Your task to perform on an android device: check android version Image 0: 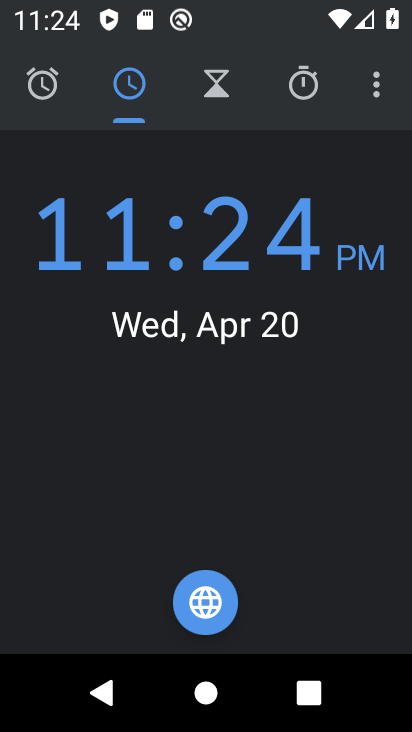
Step 0: press home button
Your task to perform on an android device: check android version Image 1: 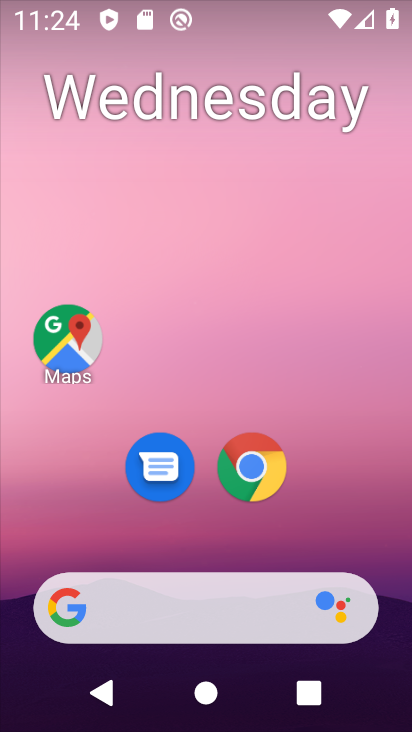
Step 1: drag from (362, 513) to (338, 70)
Your task to perform on an android device: check android version Image 2: 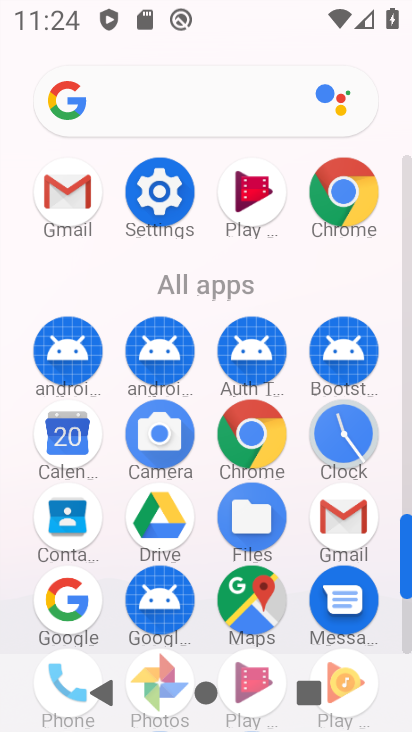
Step 2: drag from (282, 268) to (303, 61)
Your task to perform on an android device: check android version Image 3: 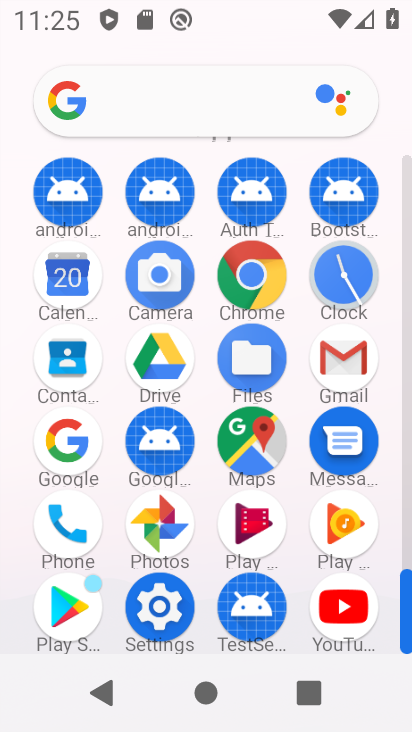
Step 3: click (173, 603)
Your task to perform on an android device: check android version Image 4: 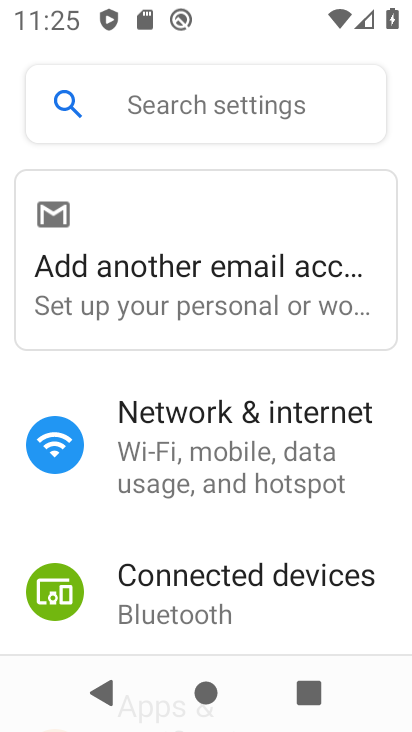
Step 4: drag from (297, 617) to (279, 149)
Your task to perform on an android device: check android version Image 5: 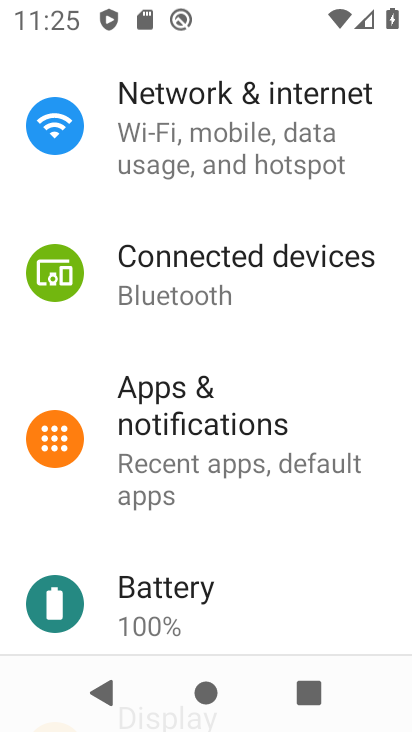
Step 5: drag from (257, 557) to (259, 160)
Your task to perform on an android device: check android version Image 6: 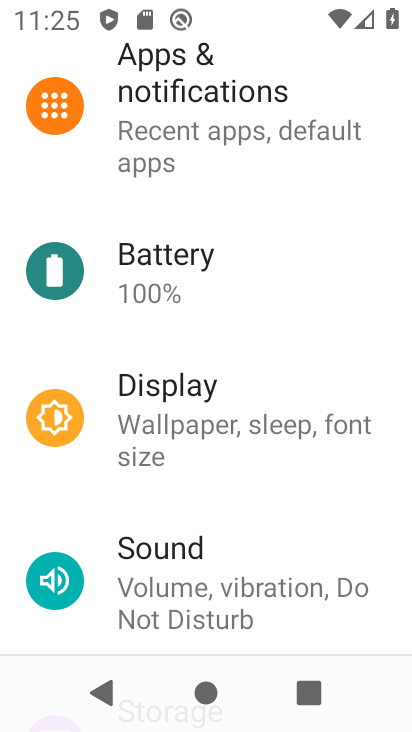
Step 6: drag from (242, 617) to (251, 145)
Your task to perform on an android device: check android version Image 7: 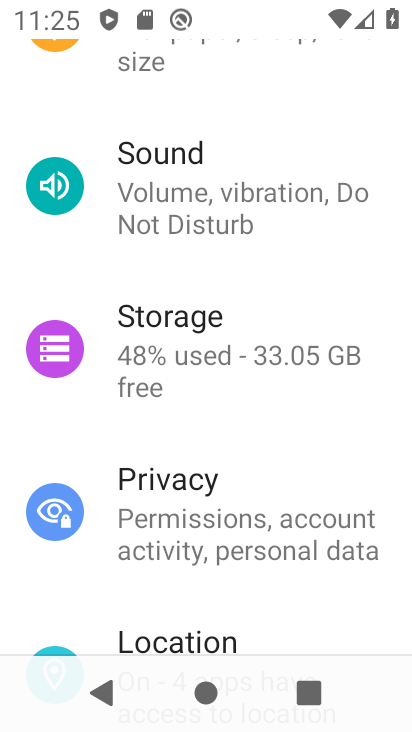
Step 7: drag from (248, 647) to (296, 12)
Your task to perform on an android device: check android version Image 8: 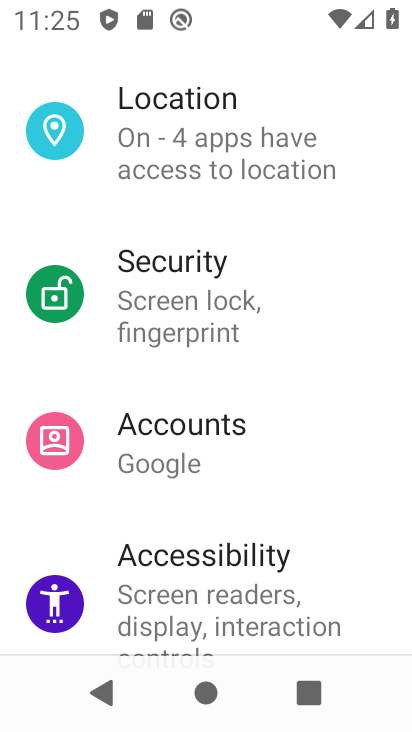
Step 8: drag from (206, 600) to (186, 130)
Your task to perform on an android device: check android version Image 9: 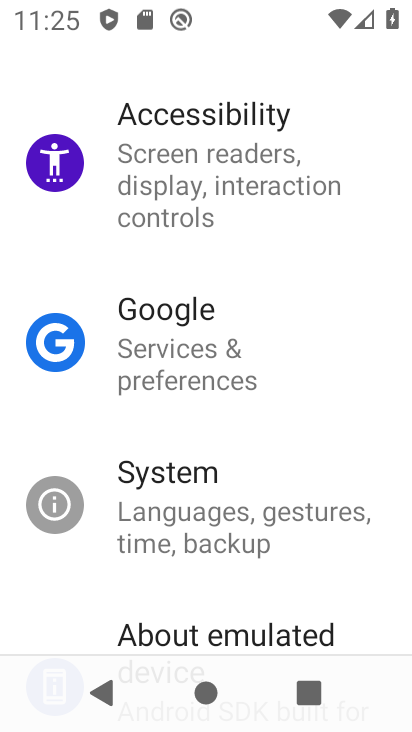
Step 9: drag from (216, 628) to (201, 261)
Your task to perform on an android device: check android version Image 10: 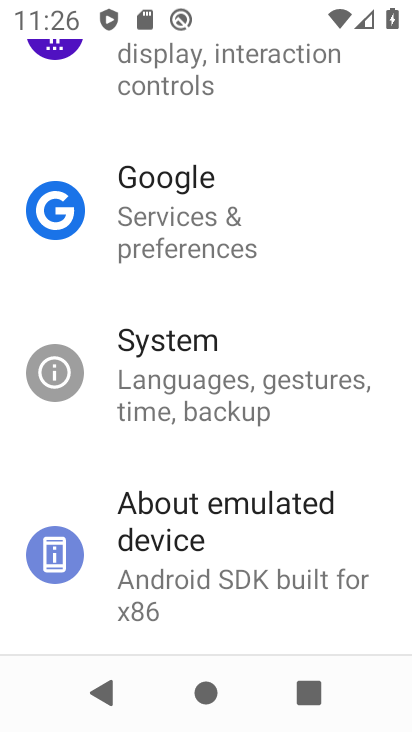
Step 10: drag from (244, 551) to (248, 441)
Your task to perform on an android device: check android version Image 11: 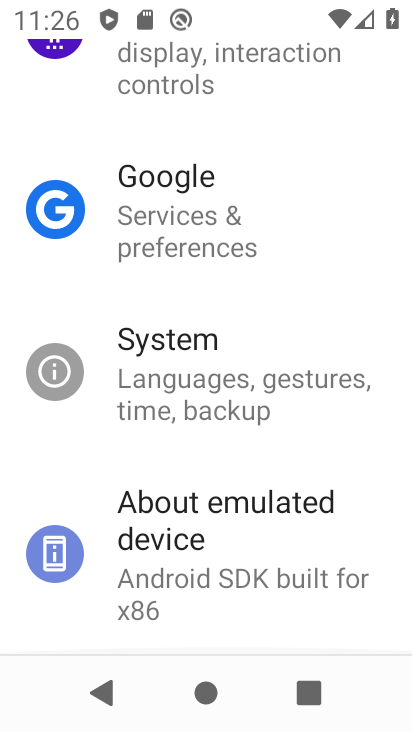
Step 11: click (249, 529)
Your task to perform on an android device: check android version Image 12: 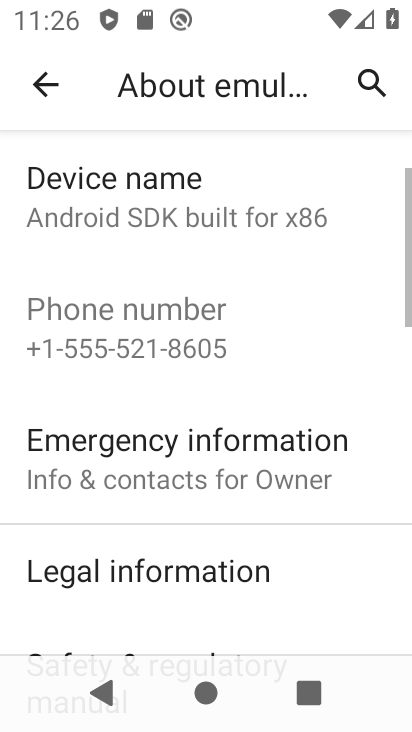
Step 12: drag from (220, 609) to (206, 353)
Your task to perform on an android device: check android version Image 13: 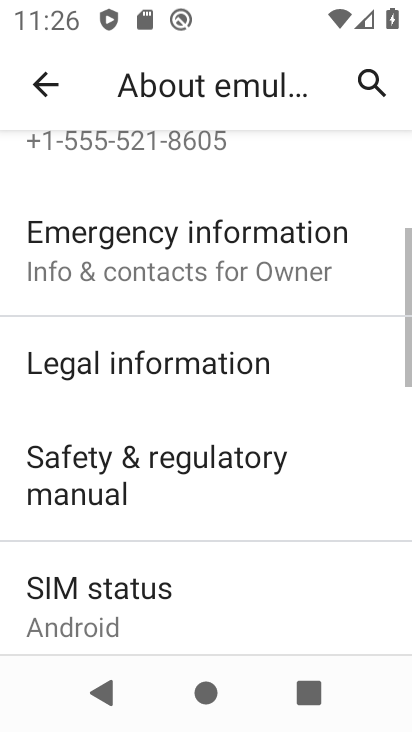
Step 13: drag from (206, 572) to (192, 222)
Your task to perform on an android device: check android version Image 14: 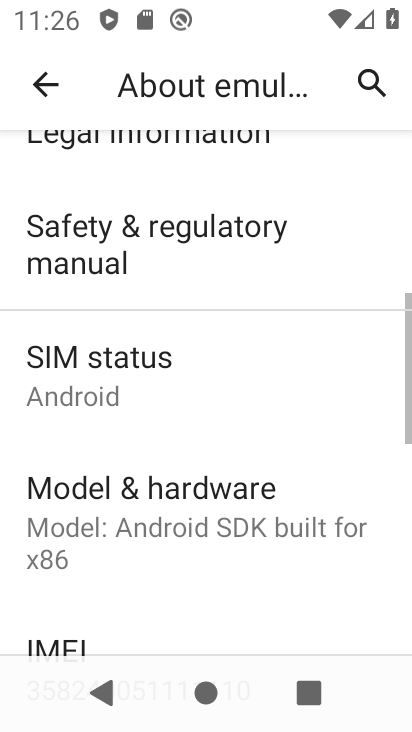
Step 14: drag from (188, 503) to (178, 187)
Your task to perform on an android device: check android version Image 15: 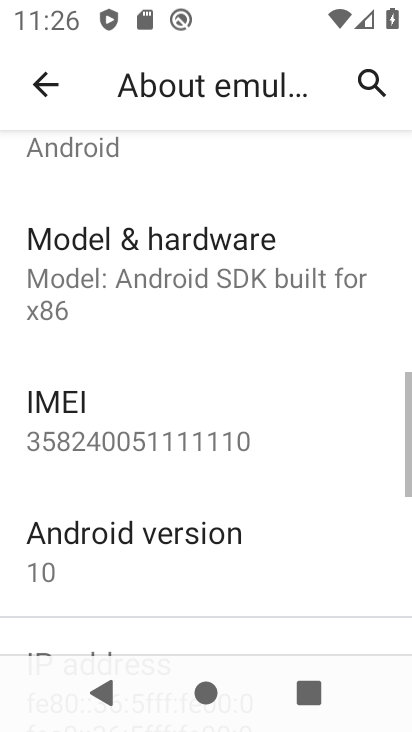
Step 15: click (195, 554)
Your task to perform on an android device: check android version Image 16: 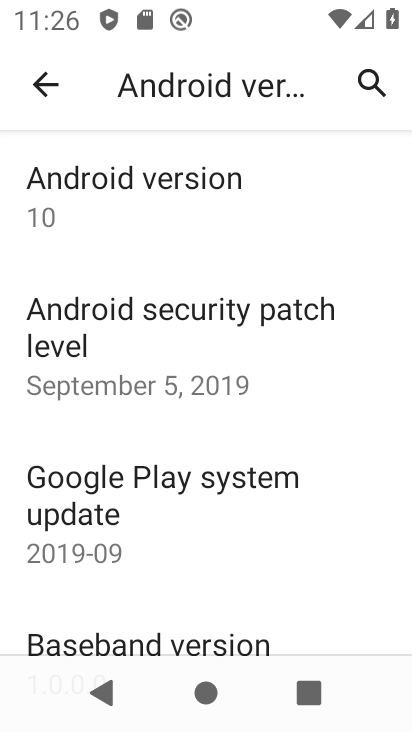
Step 16: task complete